Your task to perform on an android device: make emails show in primary in the gmail app Image 0: 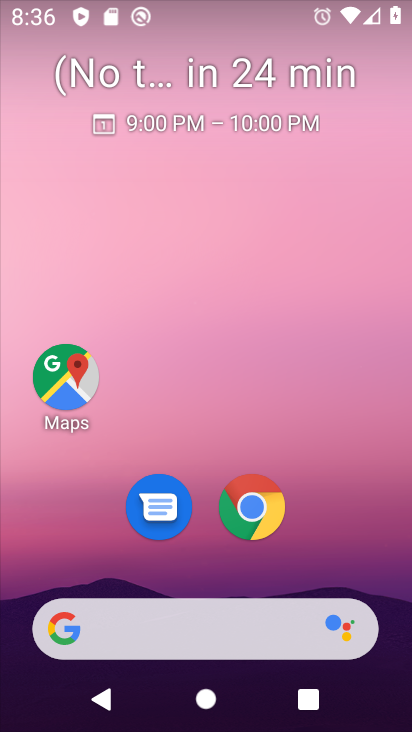
Step 0: drag from (348, 565) to (310, 178)
Your task to perform on an android device: make emails show in primary in the gmail app Image 1: 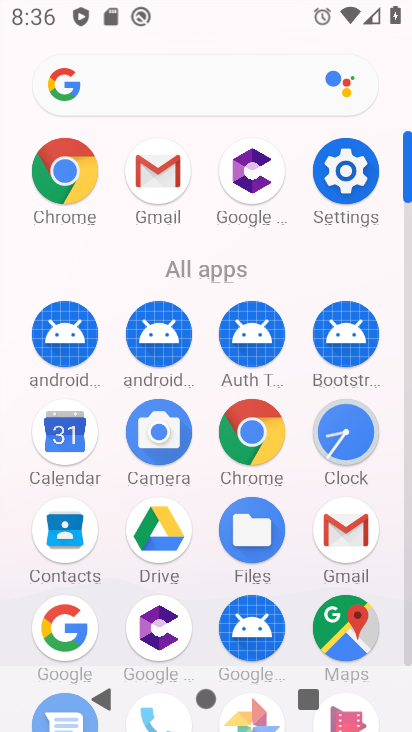
Step 1: click (173, 184)
Your task to perform on an android device: make emails show in primary in the gmail app Image 2: 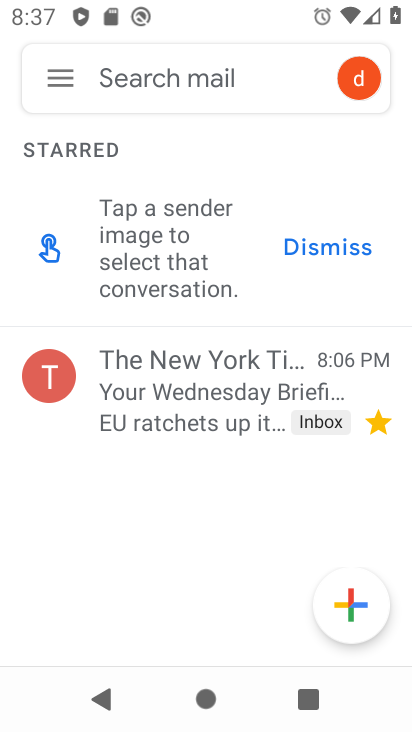
Step 2: click (66, 75)
Your task to perform on an android device: make emails show in primary in the gmail app Image 3: 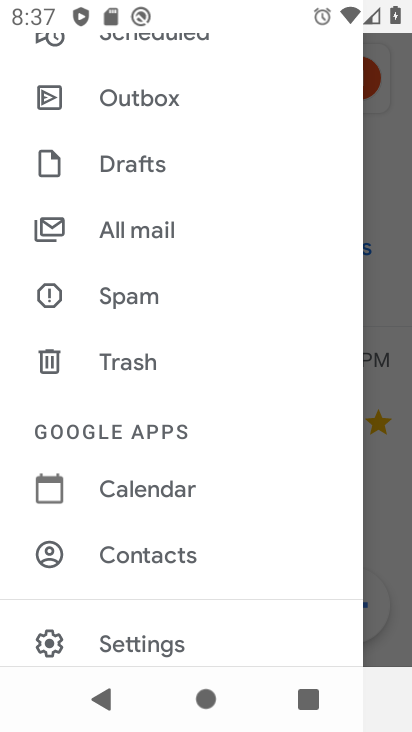
Step 3: drag from (200, 651) to (175, 379)
Your task to perform on an android device: make emails show in primary in the gmail app Image 4: 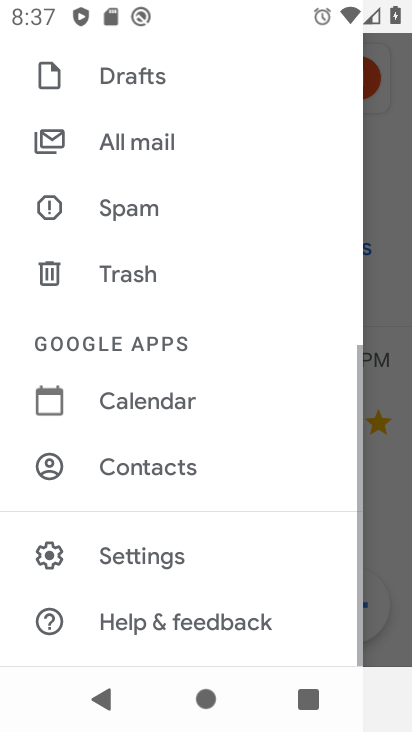
Step 4: click (171, 554)
Your task to perform on an android device: make emails show in primary in the gmail app Image 5: 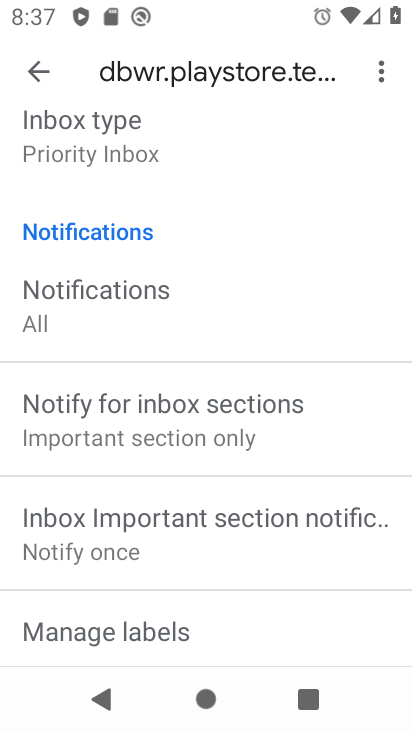
Step 5: click (205, 139)
Your task to perform on an android device: make emails show in primary in the gmail app Image 6: 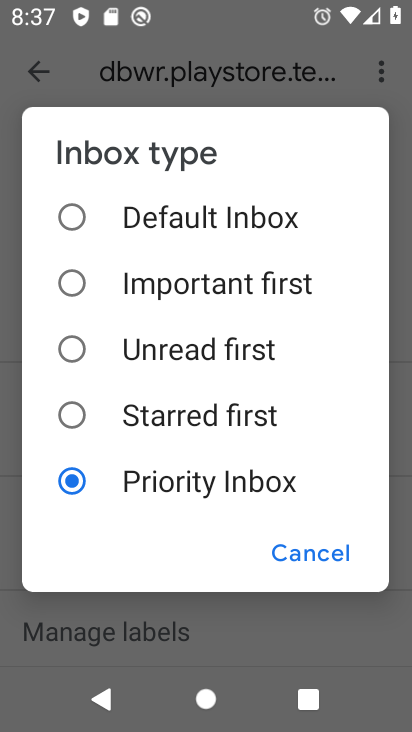
Step 6: click (226, 232)
Your task to perform on an android device: make emails show in primary in the gmail app Image 7: 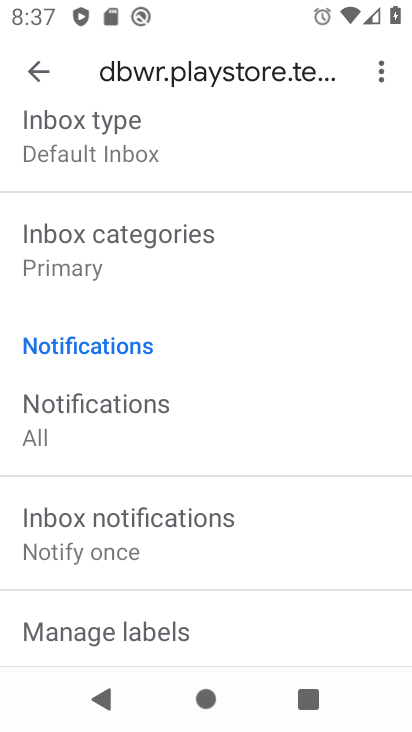
Step 7: task complete